Your task to perform on an android device: turn on sleep mode Image 0: 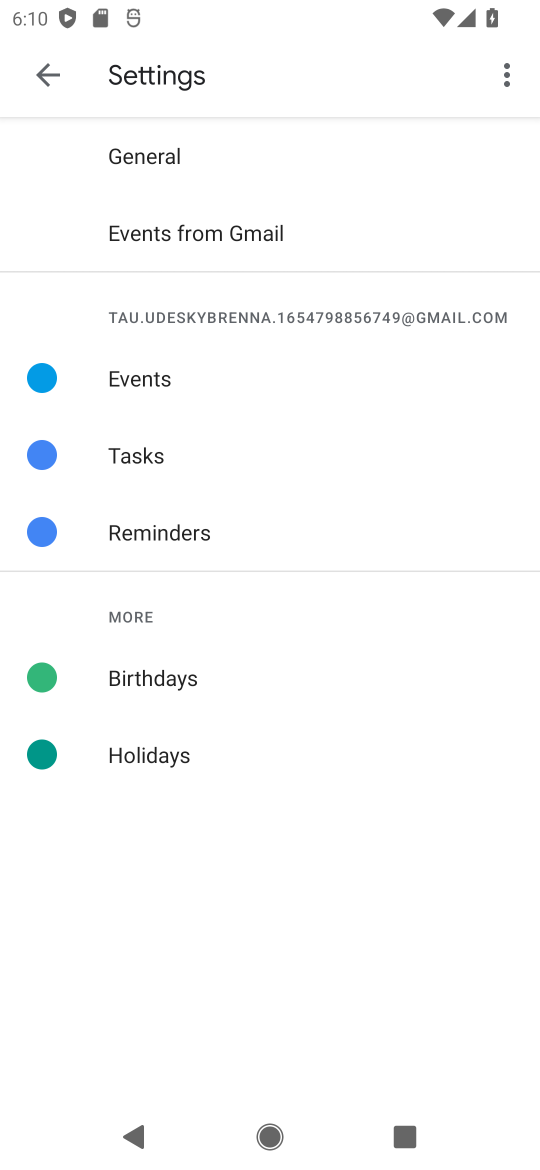
Step 0: press home button
Your task to perform on an android device: turn on sleep mode Image 1: 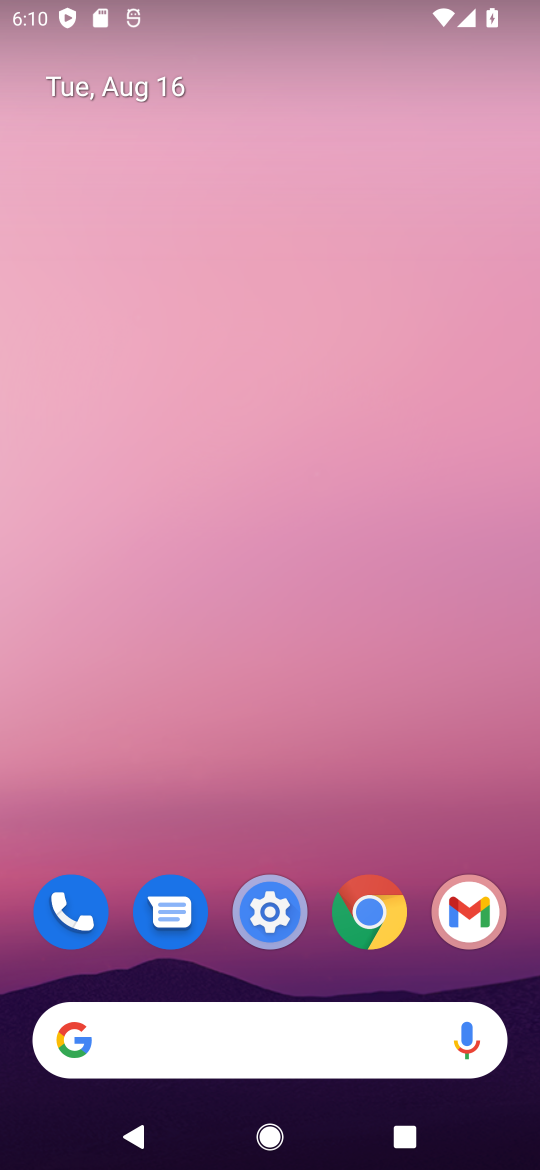
Step 1: click (270, 915)
Your task to perform on an android device: turn on sleep mode Image 2: 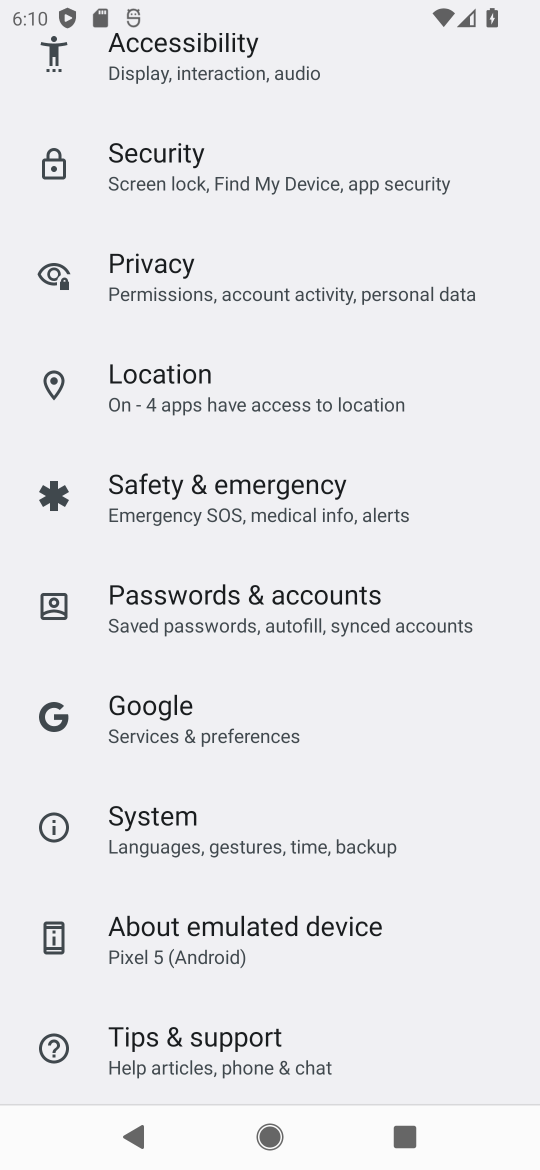
Step 2: drag from (436, 262) to (462, 755)
Your task to perform on an android device: turn on sleep mode Image 3: 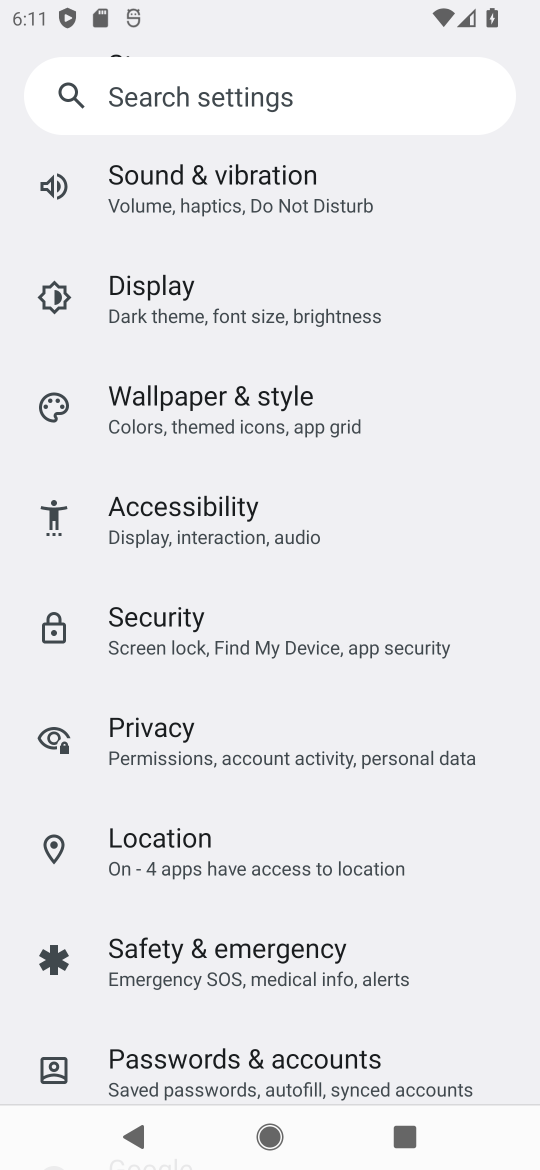
Step 3: click (143, 288)
Your task to perform on an android device: turn on sleep mode Image 4: 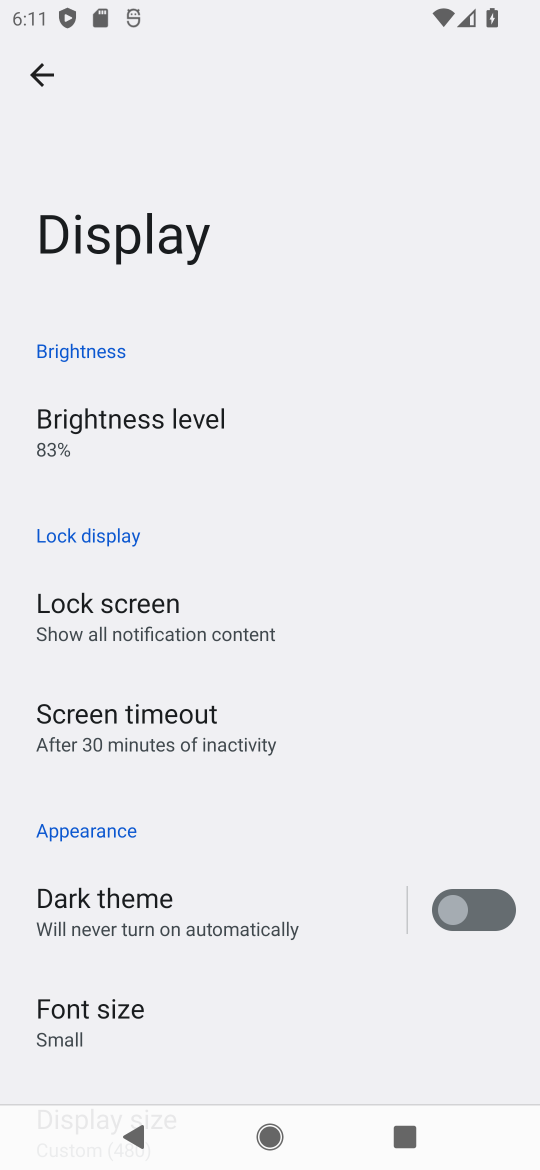
Step 4: task complete